Your task to perform on an android device: delete the emails in spam in the gmail app Image 0: 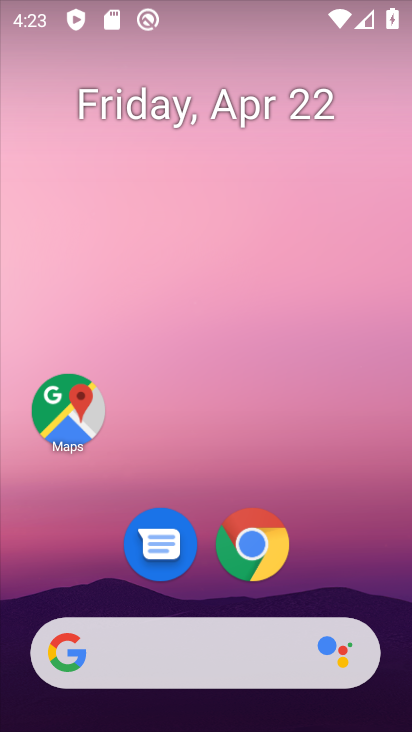
Step 0: press home button
Your task to perform on an android device: delete the emails in spam in the gmail app Image 1: 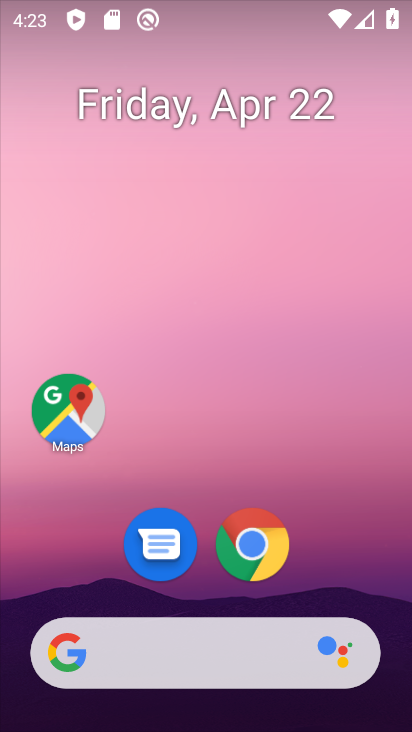
Step 1: drag from (182, 580) to (174, 215)
Your task to perform on an android device: delete the emails in spam in the gmail app Image 2: 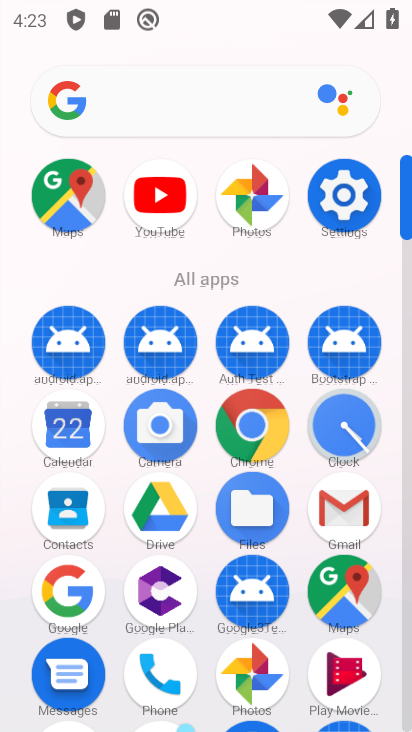
Step 2: click (345, 510)
Your task to perform on an android device: delete the emails in spam in the gmail app Image 3: 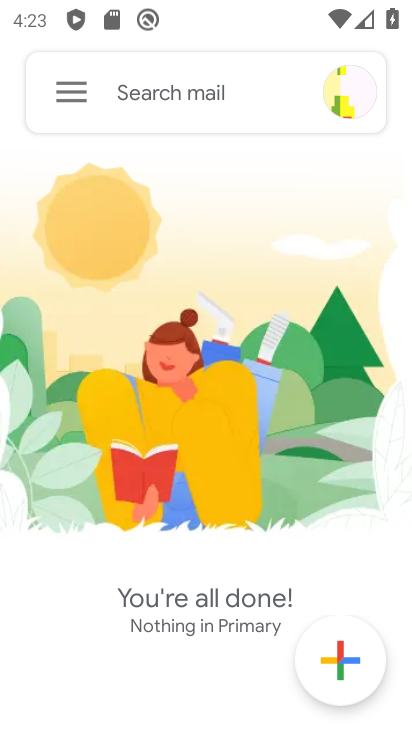
Step 3: click (74, 94)
Your task to perform on an android device: delete the emails in spam in the gmail app Image 4: 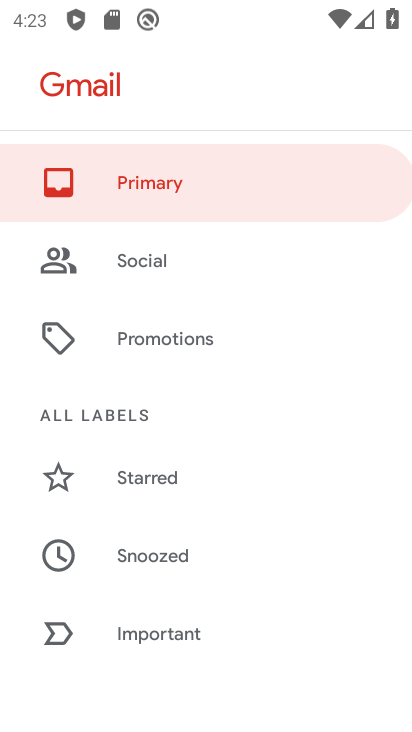
Step 4: drag from (168, 668) to (175, 285)
Your task to perform on an android device: delete the emails in spam in the gmail app Image 5: 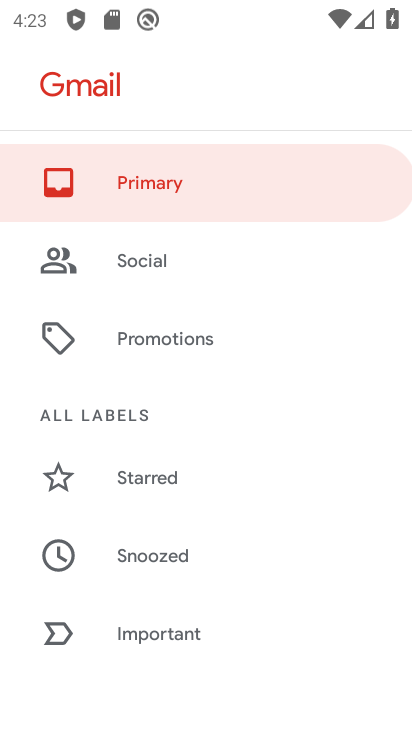
Step 5: drag from (216, 629) to (216, 380)
Your task to perform on an android device: delete the emails in spam in the gmail app Image 6: 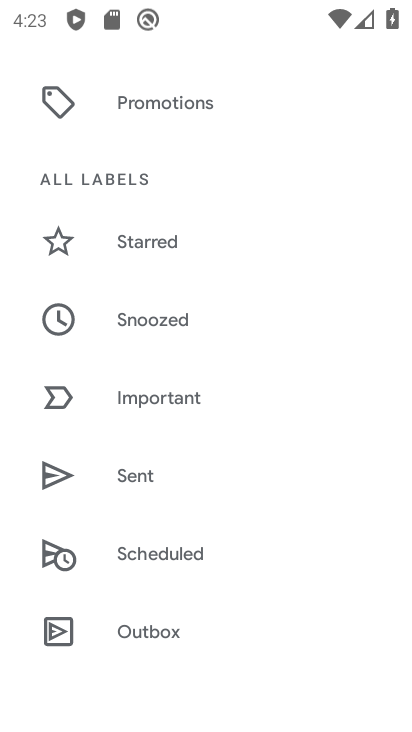
Step 6: drag from (220, 622) to (219, 305)
Your task to perform on an android device: delete the emails in spam in the gmail app Image 7: 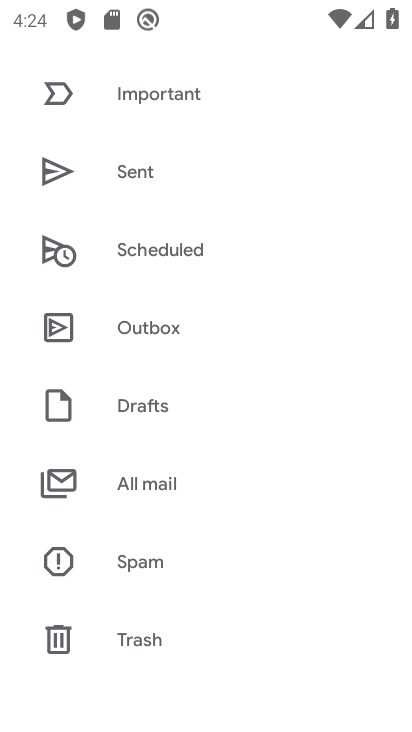
Step 7: click (144, 577)
Your task to perform on an android device: delete the emails in spam in the gmail app Image 8: 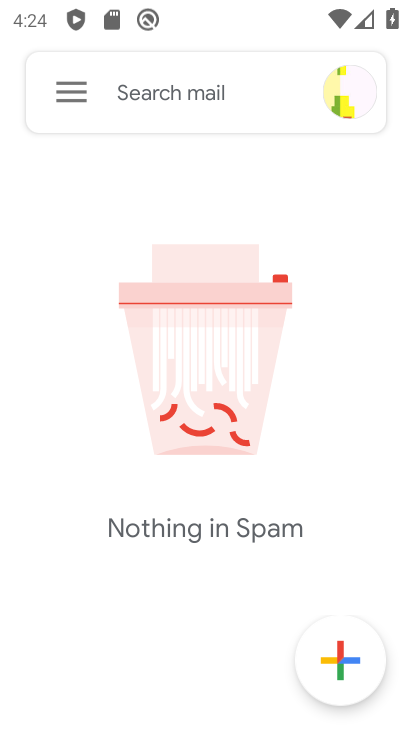
Step 8: task complete